Your task to perform on an android device: turn off translation in the chrome app Image 0: 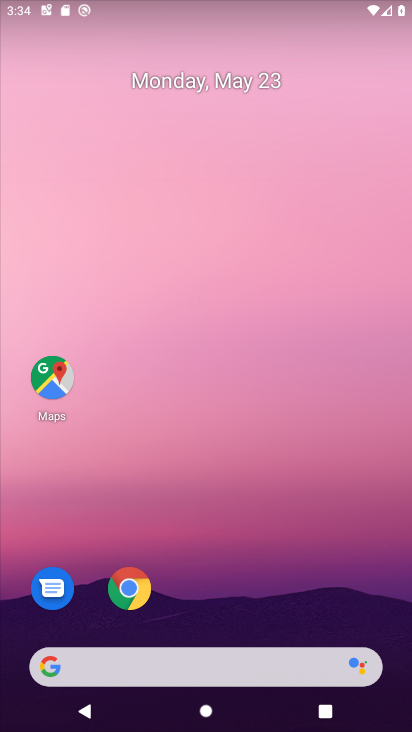
Step 0: drag from (176, 630) to (225, 10)
Your task to perform on an android device: turn off translation in the chrome app Image 1: 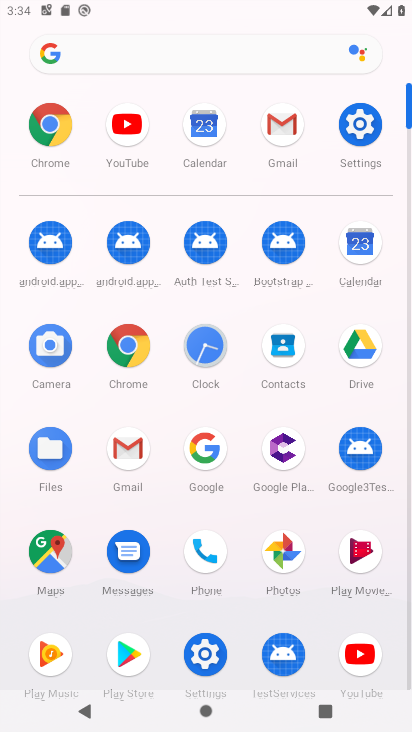
Step 1: click (49, 122)
Your task to perform on an android device: turn off translation in the chrome app Image 2: 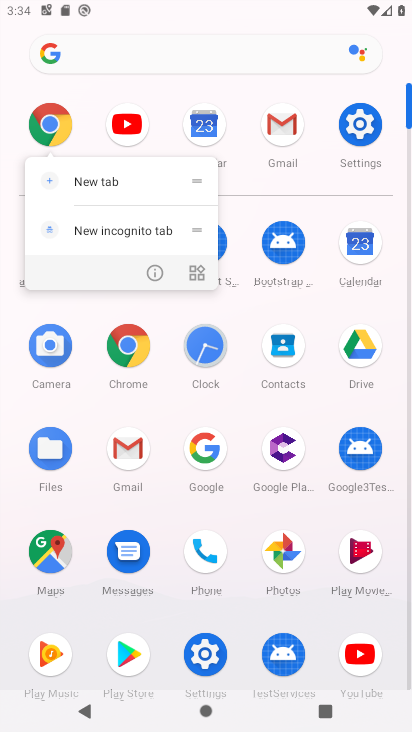
Step 2: click (156, 268)
Your task to perform on an android device: turn off translation in the chrome app Image 3: 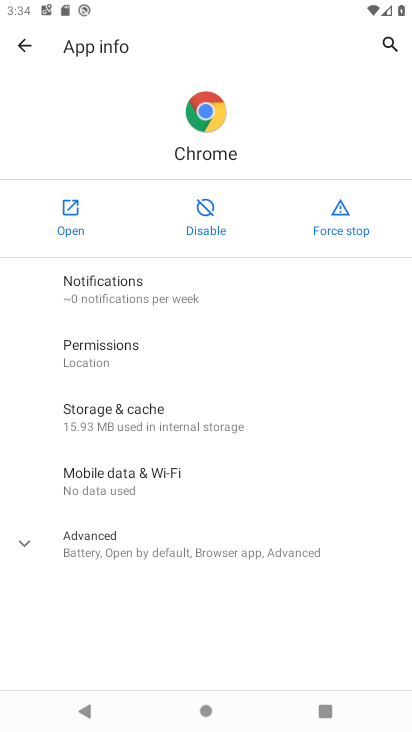
Step 3: click (73, 215)
Your task to perform on an android device: turn off translation in the chrome app Image 4: 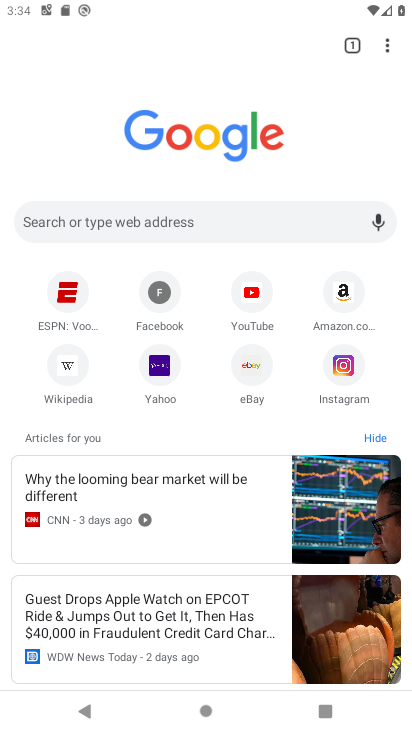
Step 4: click (393, 53)
Your task to perform on an android device: turn off translation in the chrome app Image 5: 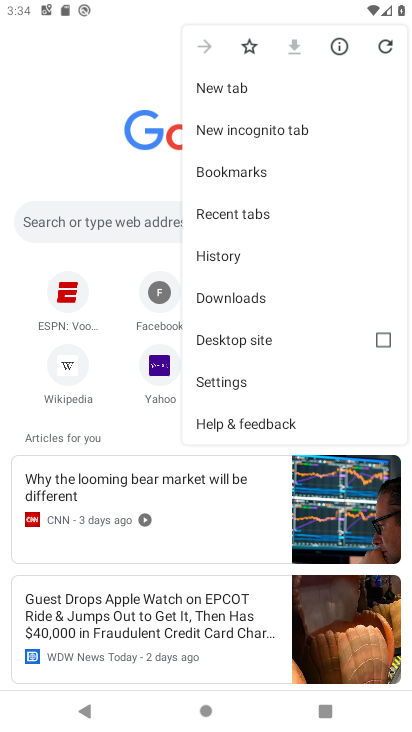
Step 5: click (230, 382)
Your task to perform on an android device: turn off translation in the chrome app Image 6: 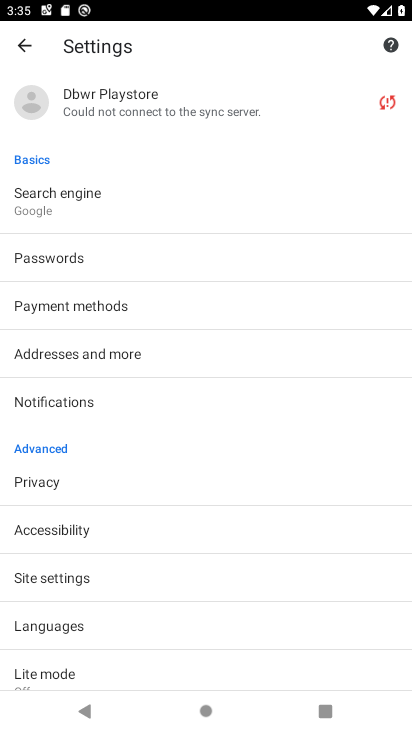
Step 6: drag from (171, 589) to (268, 259)
Your task to perform on an android device: turn off translation in the chrome app Image 7: 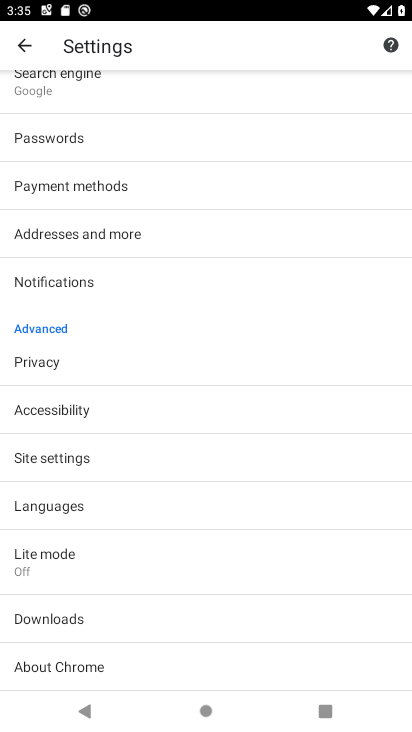
Step 7: click (94, 459)
Your task to perform on an android device: turn off translation in the chrome app Image 8: 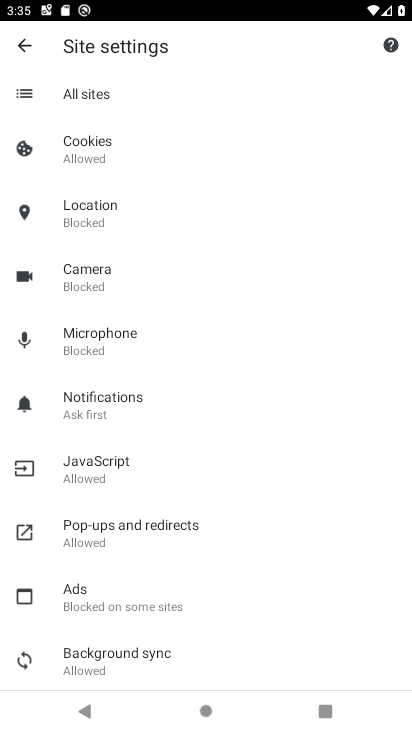
Step 8: click (21, 43)
Your task to perform on an android device: turn off translation in the chrome app Image 9: 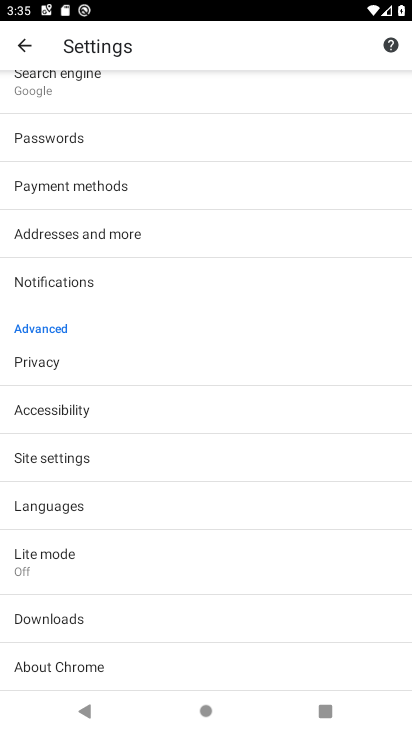
Step 9: click (75, 505)
Your task to perform on an android device: turn off translation in the chrome app Image 10: 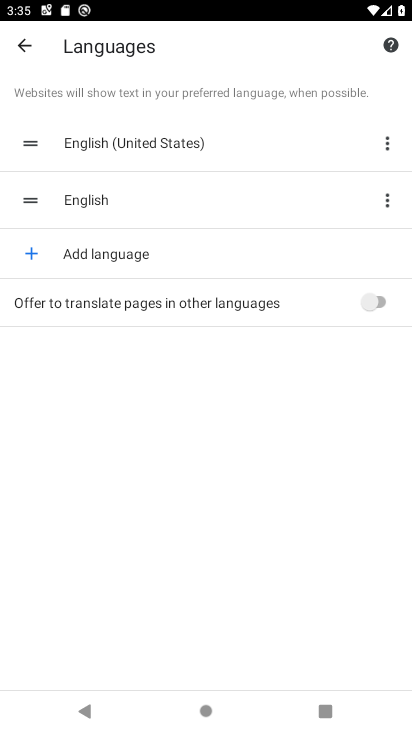
Step 10: click (333, 290)
Your task to perform on an android device: turn off translation in the chrome app Image 11: 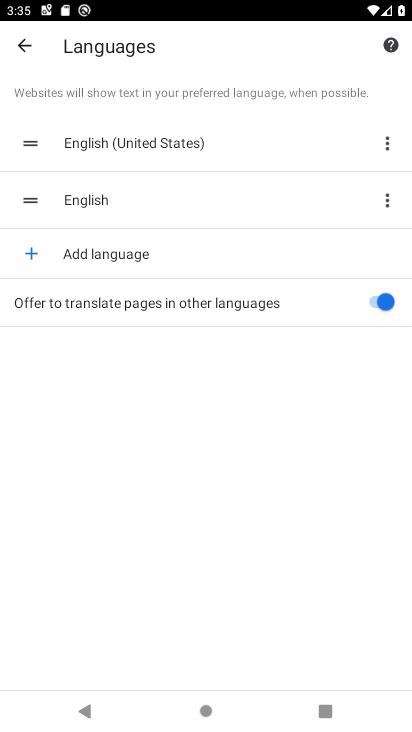
Step 11: task complete